Your task to perform on an android device: Open the map Image 0: 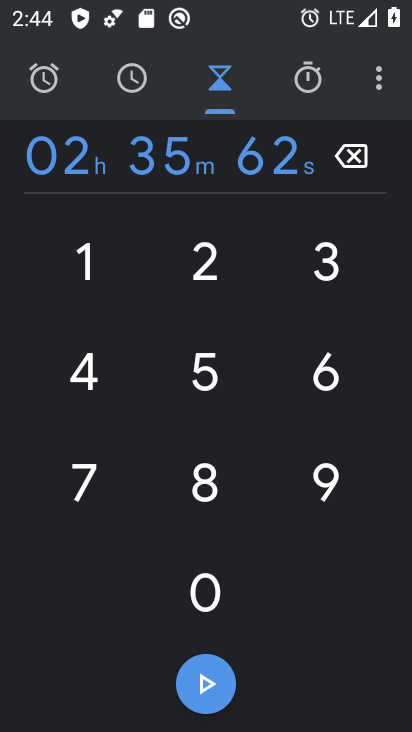
Step 0: press back button
Your task to perform on an android device: Open the map Image 1: 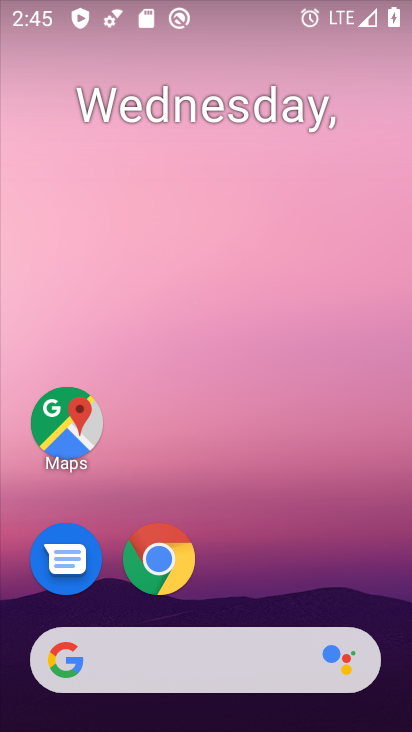
Step 1: click (77, 407)
Your task to perform on an android device: Open the map Image 2: 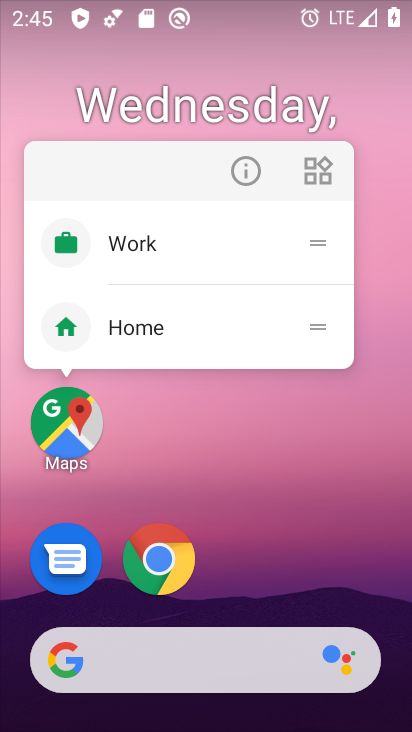
Step 2: click (59, 433)
Your task to perform on an android device: Open the map Image 3: 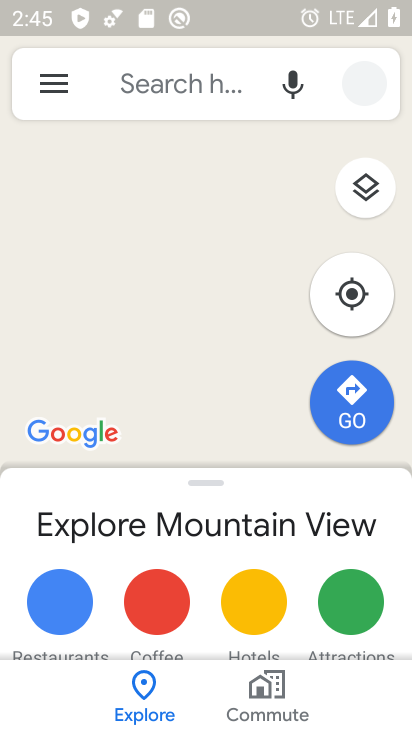
Step 3: task complete